Your task to perform on an android device: open app "Google Translate" (install if not already installed) Image 0: 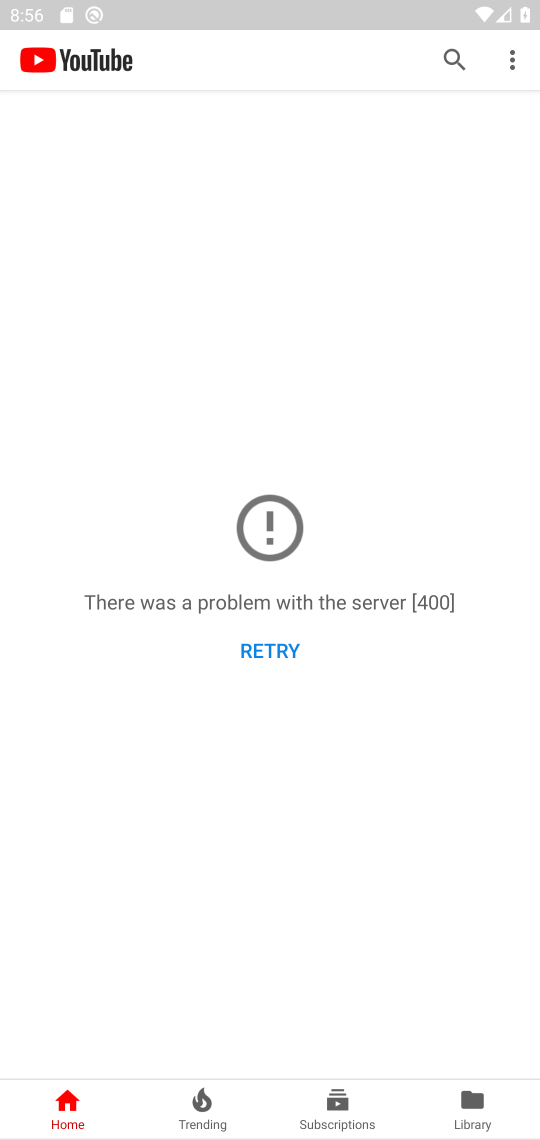
Step 0: press home button
Your task to perform on an android device: open app "Google Translate" (install if not already installed) Image 1: 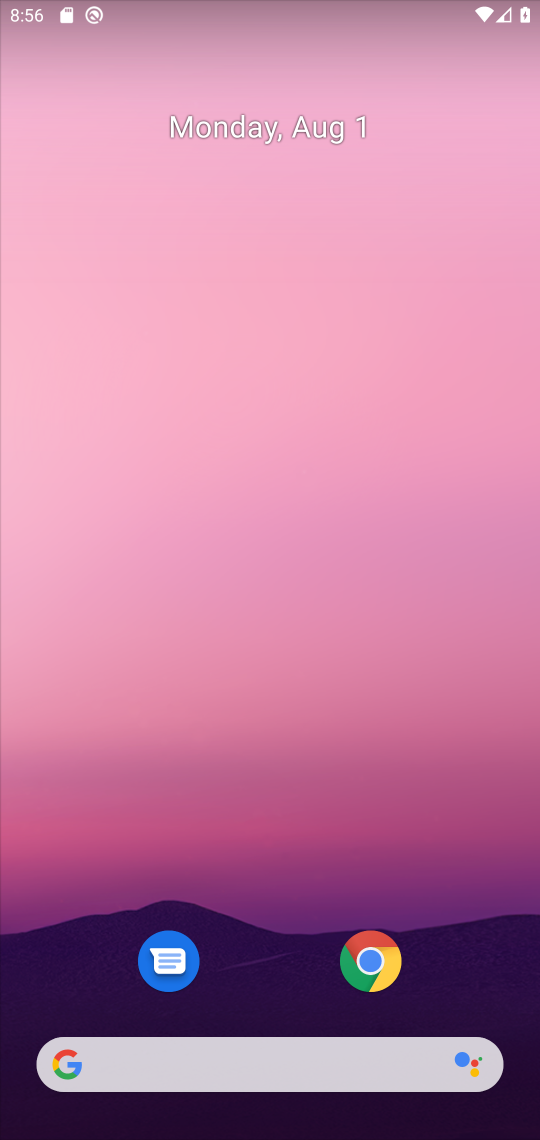
Step 1: drag from (476, 846) to (538, 491)
Your task to perform on an android device: open app "Google Translate" (install if not already installed) Image 2: 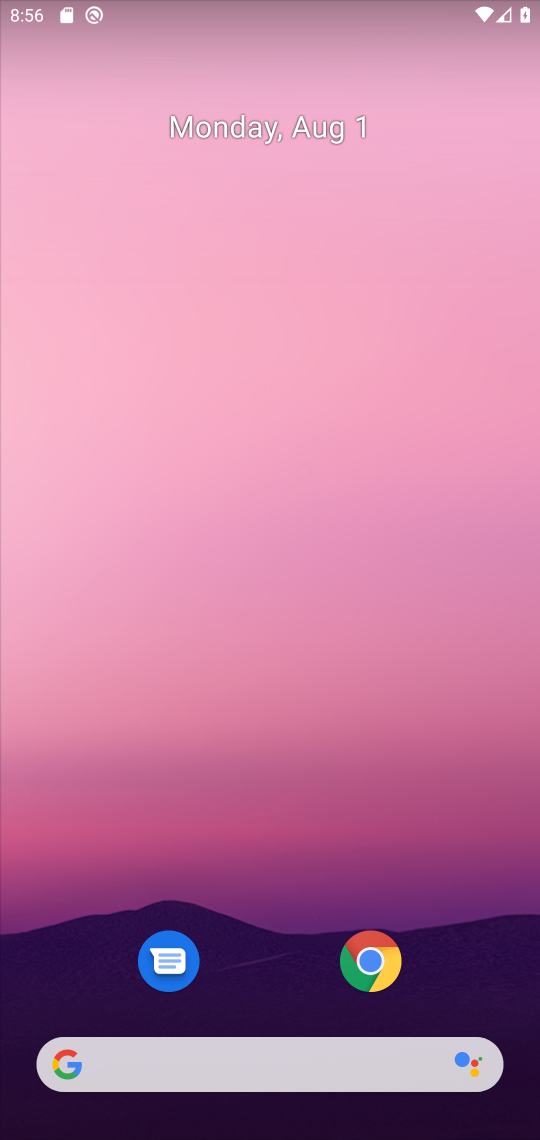
Step 2: drag from (486, 891) to (528, 727)
Your task to perform on an android device: open app "Google Translate" (install if not already installed) Image 3: 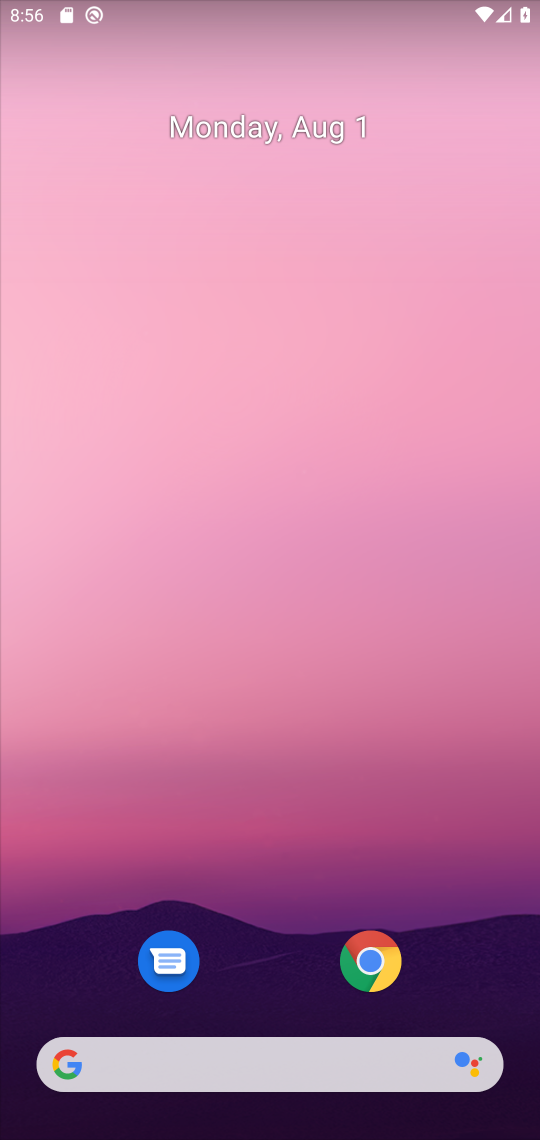
Step 3: drag from (402, 954) to (485, 2)
Your task to perform on an android device: open app "Google Translate" (install if not already installed) Image 4: 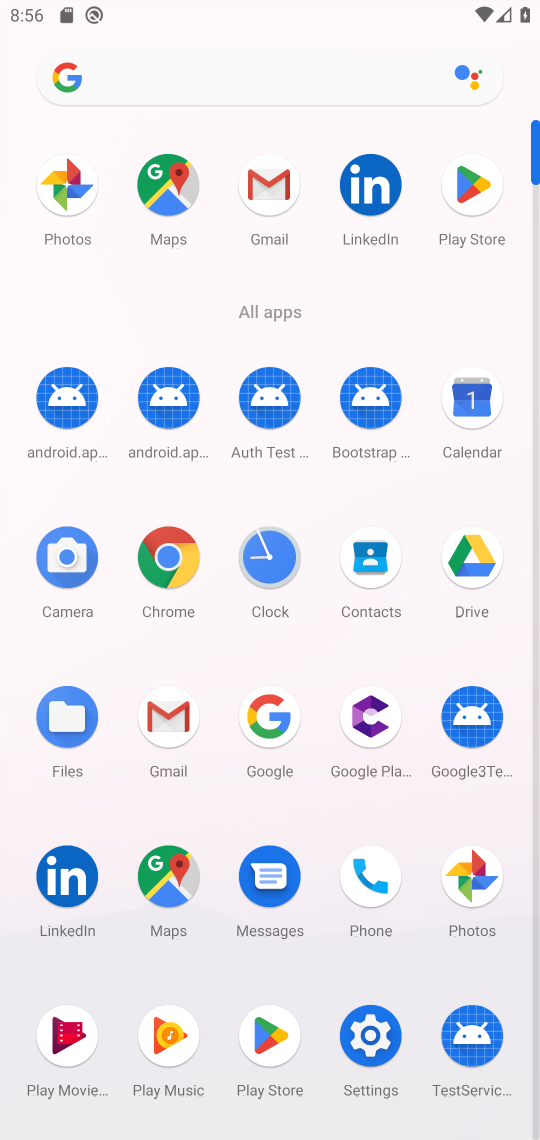
Step 4: click (460, 177)
Your task to perform on an android device: open app "Google Translate" (install if not already installed) Image 5: 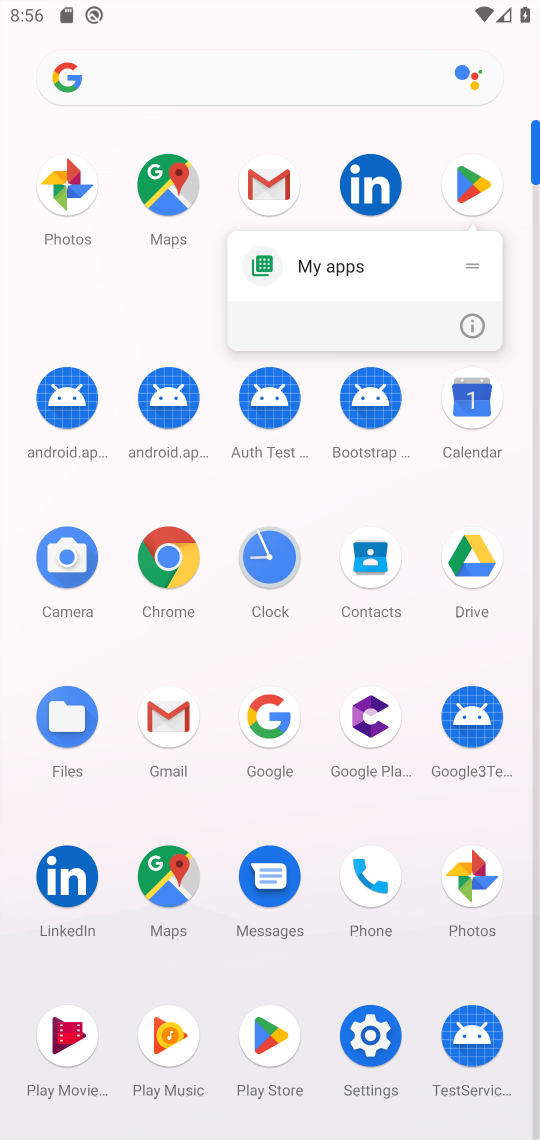
Step 5: click (485, 204)
Your task to perform on an android device: open app "Google Translate" (install if not already installed) Image 6: 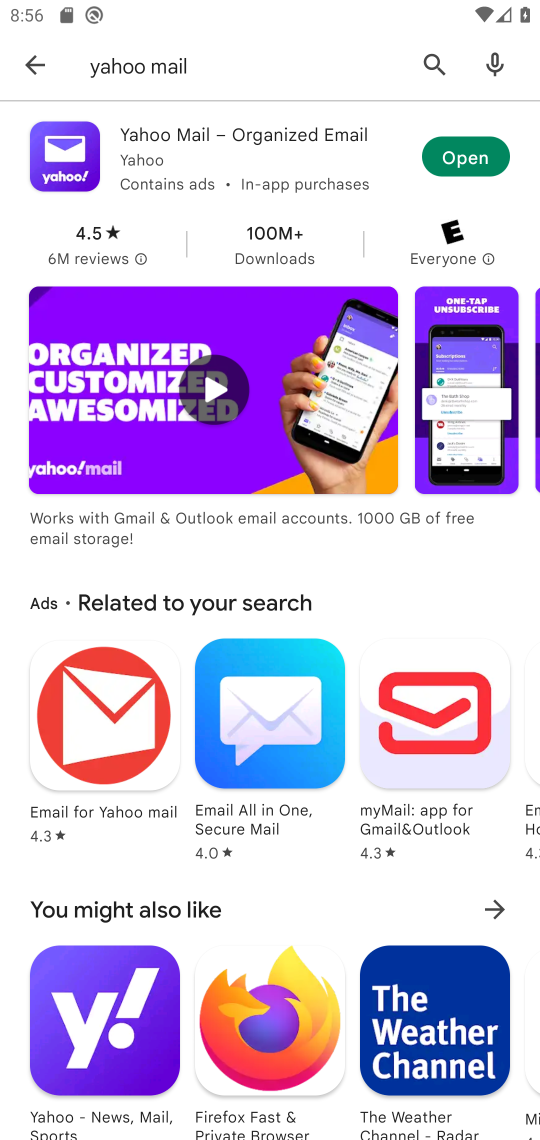
Step 6: click (39, 73)
Your task to perform on an android device: open app "Google Translate" (install if not already installed) Image 7: 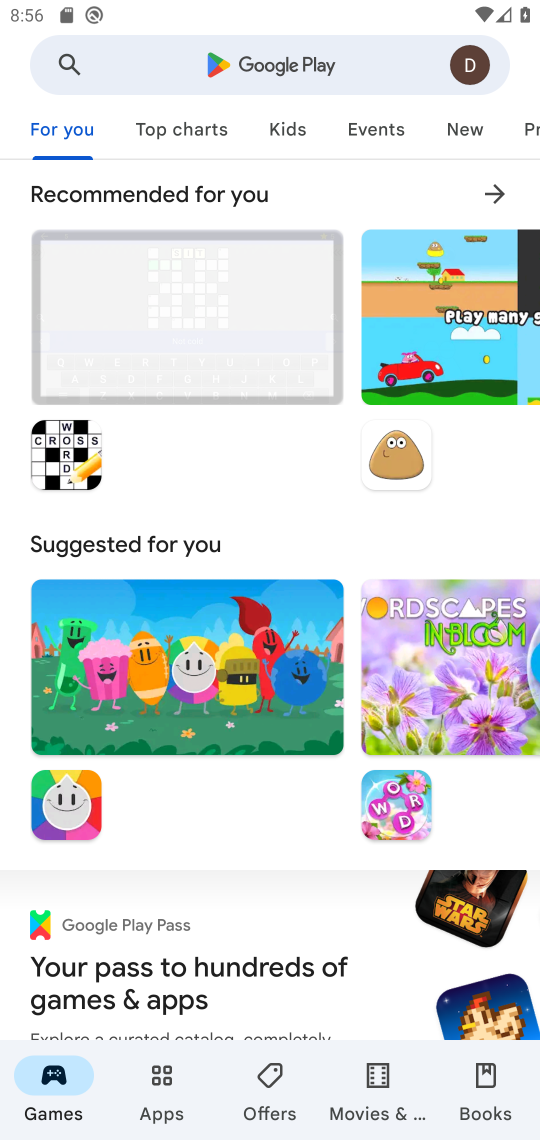
Step 7: click (148, 73)
Your task to perform on an android device: open app "Google Translate" (install if not already installed) Image 8: 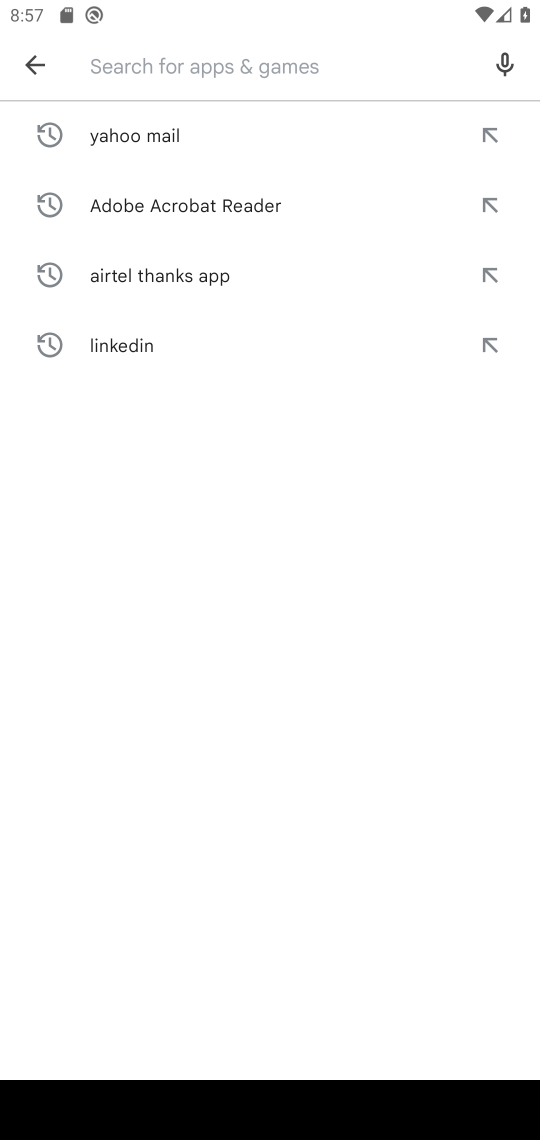
Step 8: type "Google Translate"
Your task to perform on an android device: open app "Google Translate" (install if not already installed) Image 9: 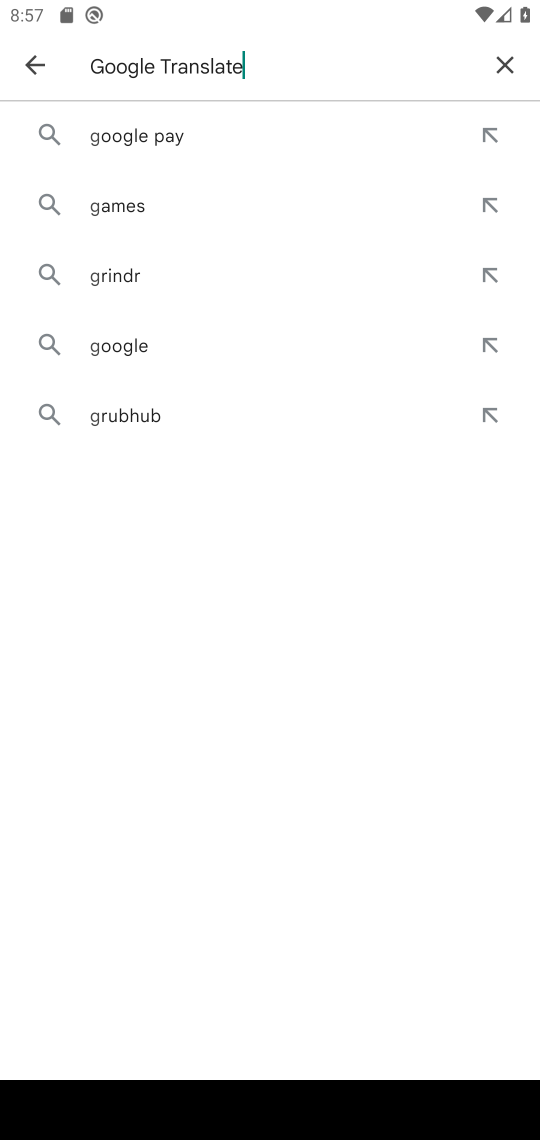
Step 9: press enter
Your task to perform on an android device: open app "Google Translate" (install if not already installed) Image 10: 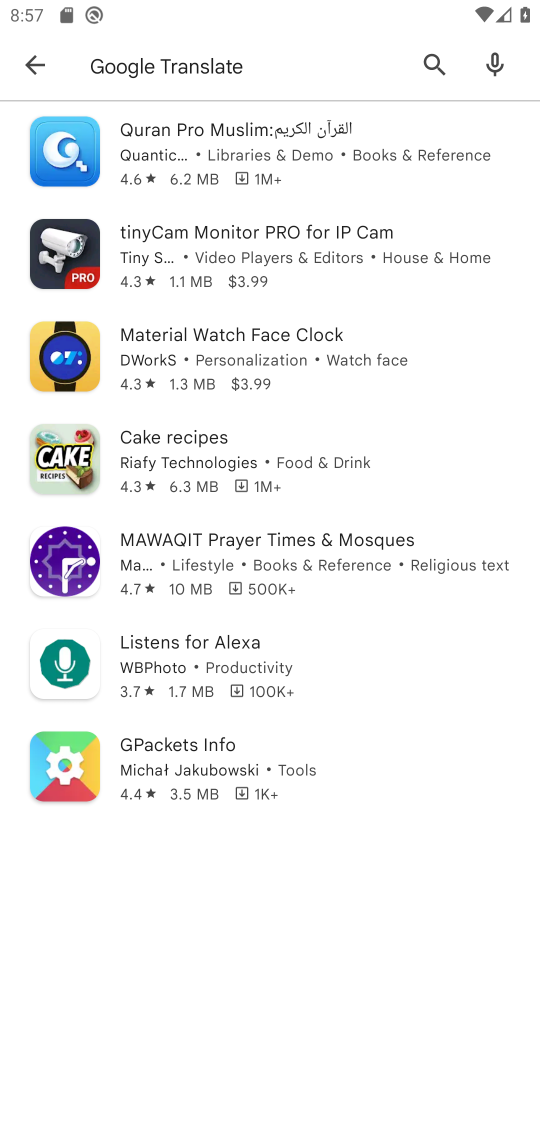
Step 10: task complete